Your task to perform on an android device: empty trash in the gmail app Image 0: 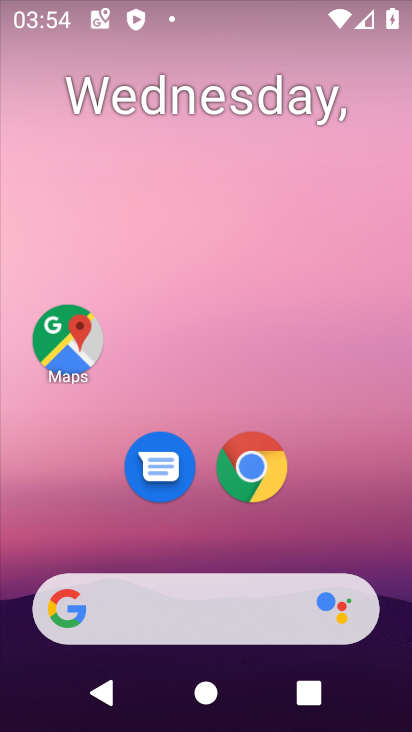
Step 0: drag from (317, 276) to (243, 23)
Your task to perform on an android device: empty trash in the gmail app Image 1: 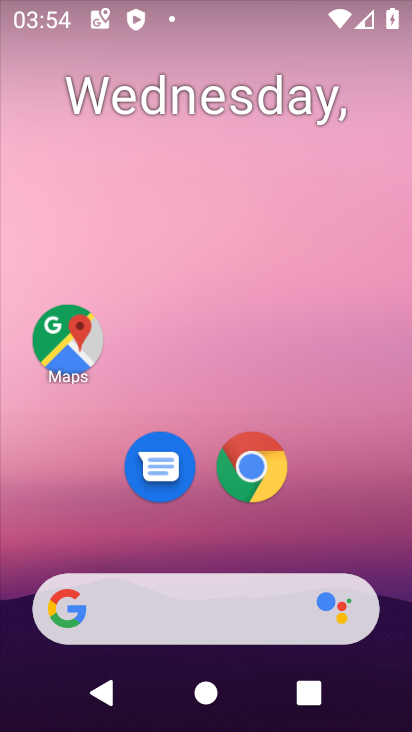
Step 1: drag from (389, 606) to (272, 115)
Your task to perform on an android device: empty trash in the gmail app Image 2: 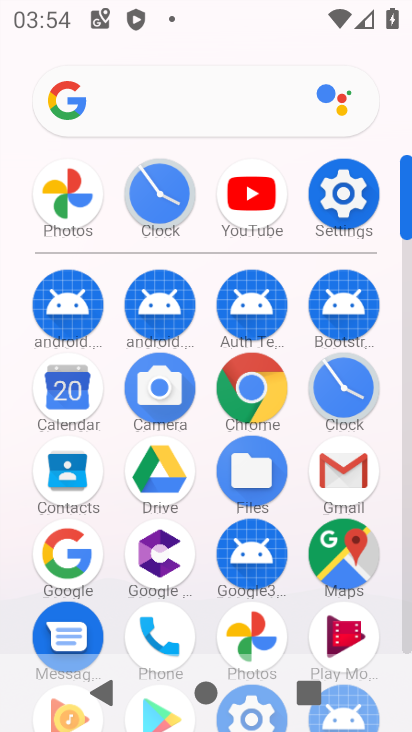
Step 2: click (406, 632)
Your task to perform on an android device: empty trash in the gmail app Image 3: 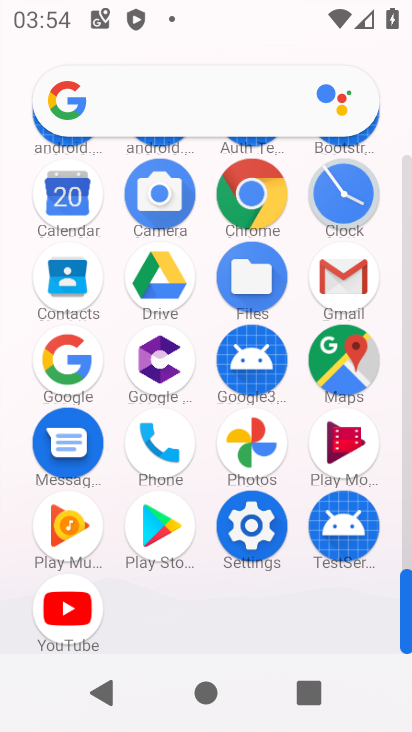
Step 3: click (340, 273)
Your task to perform on an android device: empty trash in the gmail app Image 4: 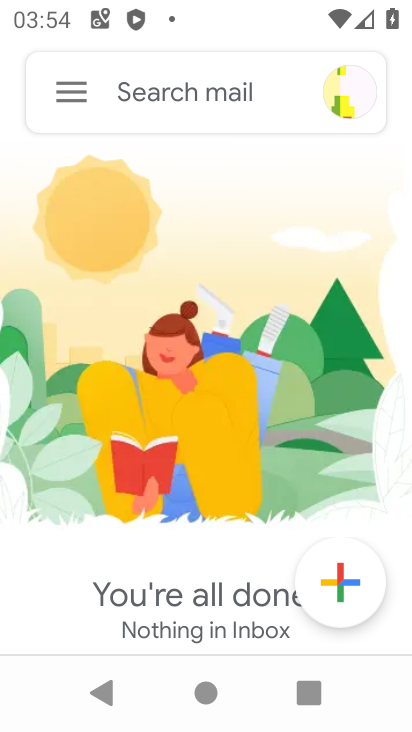
Step 4: click (60, 78)
Your task to perform on an android device: empty trash in the gmail app Image 5: 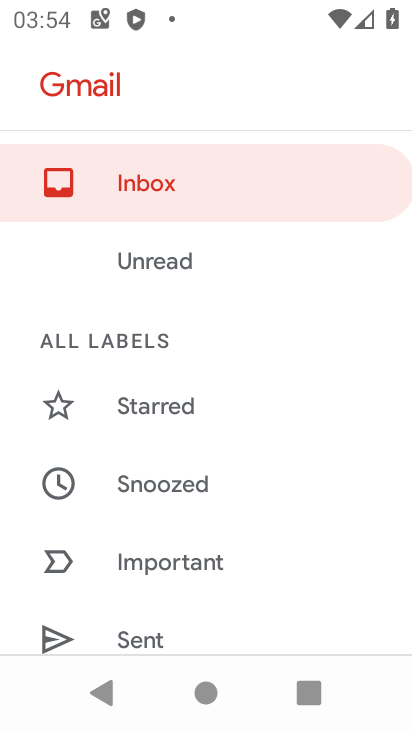
Step 5: drag from (271, 571) to (301, 287)
Your task to perform on an android device: empty trash in the gmail app Image 6: 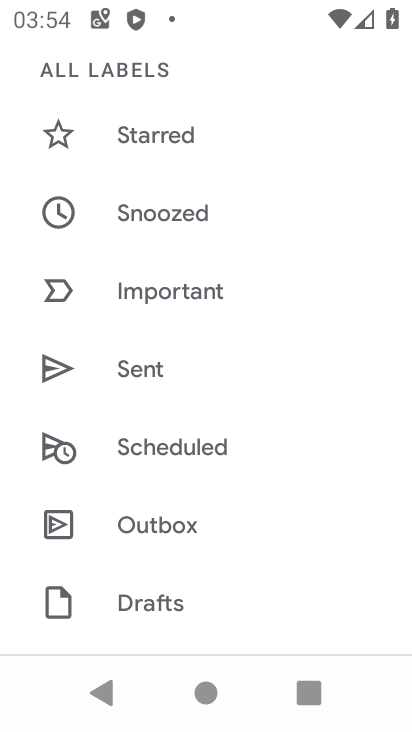
Step 6: drag from (210, 556) to (247, 217)
Your task to perform on an android device: empty trash in the gmail app Image 7: 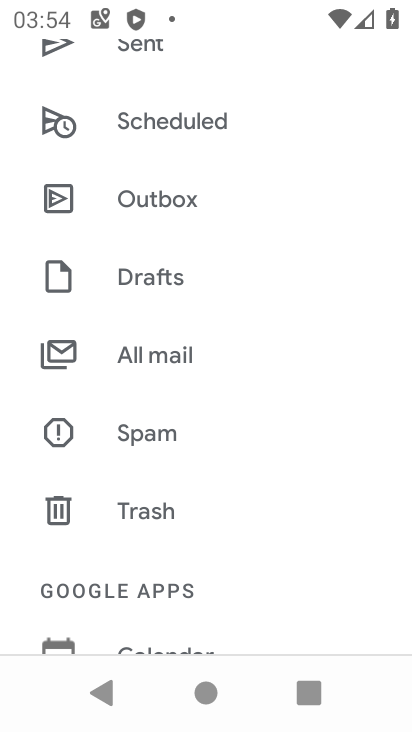
Step 7: click (144, 517)
Your task to perform on an android device: empty trash in the gmail app Image 8: 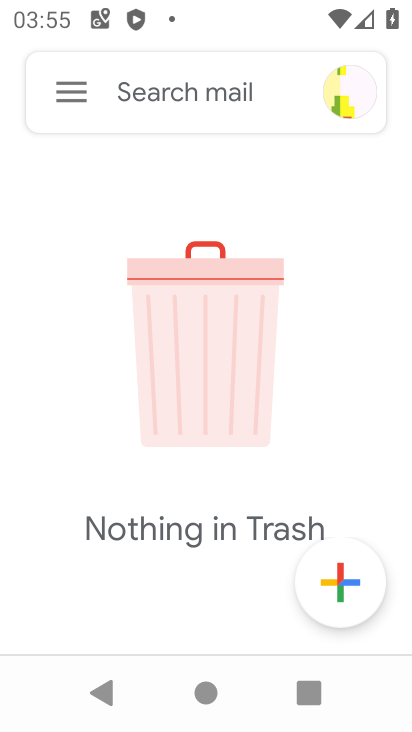
Step 8: task complete